Your task to perform on an android device: turn on wifi Image 0: 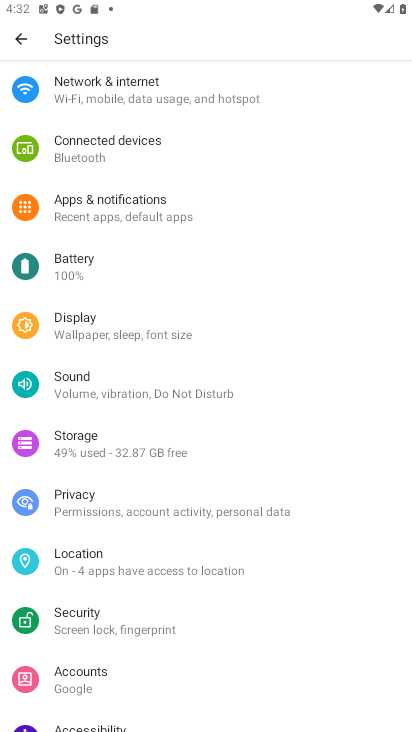
Step 0: press home button
Your task to perform on an android device: turn on wifi Image 1: 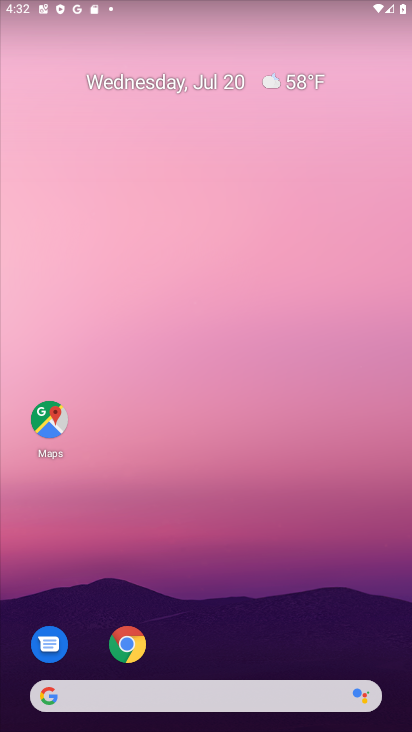
Step 1: drag from (225, 606) to (213, 81)
Your task to perform on an android device: turn on wifi Image 2: 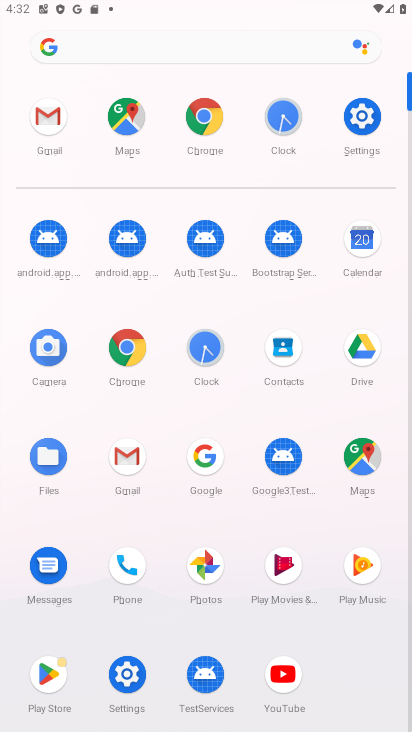
Step 2: click (366, 109)
Your task to perform on an android device: turn on wifi Image 3: 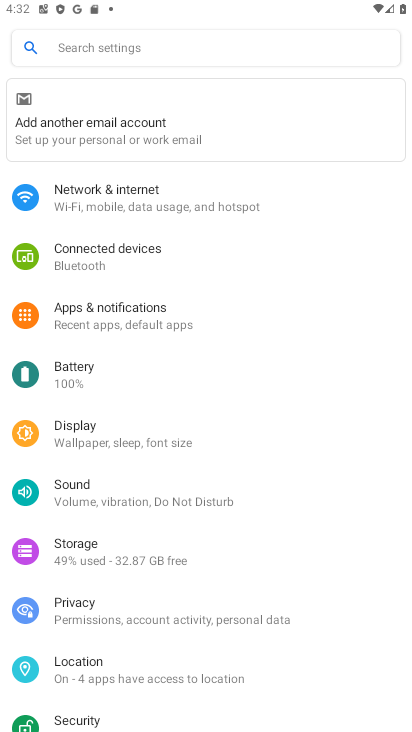
Step 3: click (122, 191)
Your task to perform on an android device: turn on wifi Image 4: 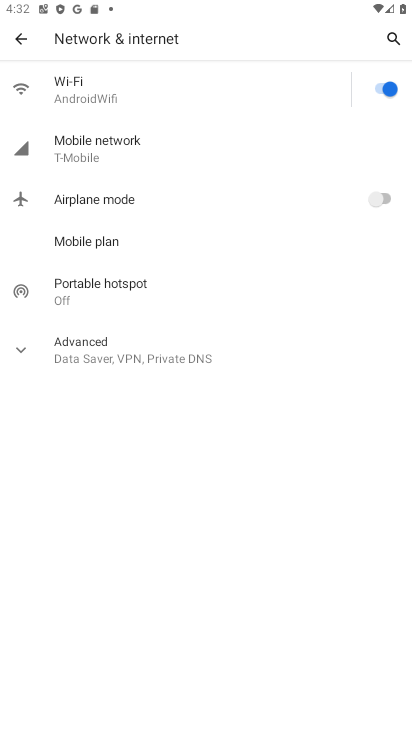
Step 4: task complete